Your task to perform on an android device: snooze an email in the gmail app Image 0: 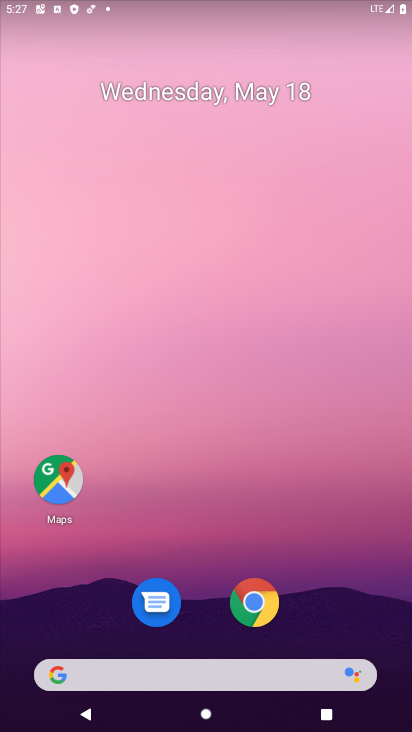
Step 0: drag from (289, 668) to (275, 96)
Your task to perform on an android device: snooze an email in the gmail app Image 1: 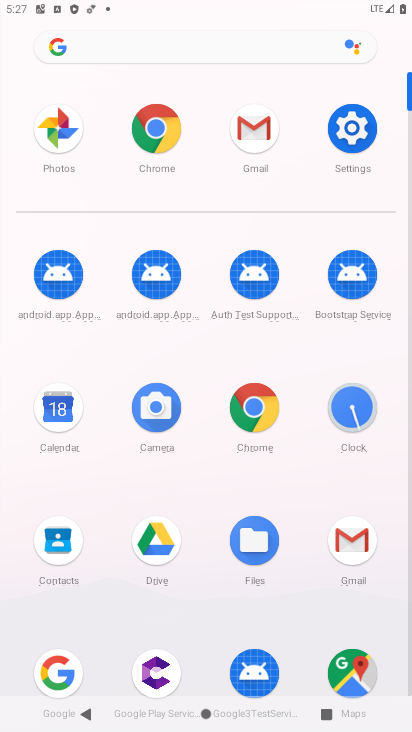
Step 1: click (366, 535)
Your task to perform on an android device: snooze an email in the gmail app Image 2: 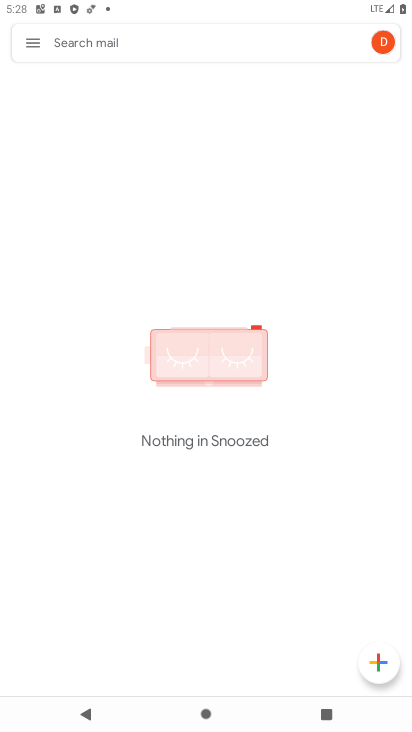
Step 2: click (24, 48)
Your task to perform on an android device: snooze an email in the gmail app Image 3: 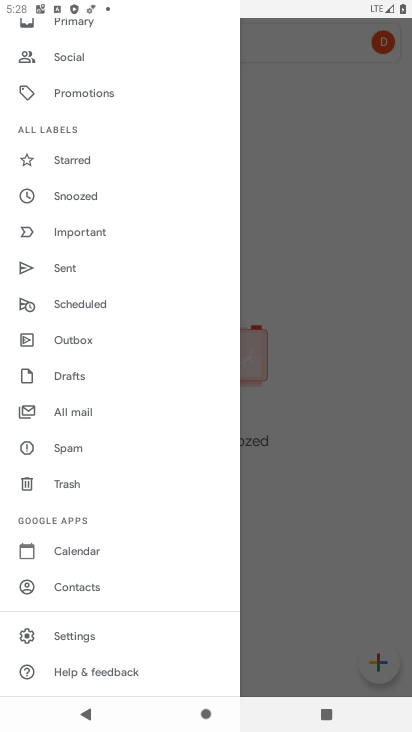
Step 3: click (94, 196)
Your task to perform on an android device: snooze an email in the gmail app Image 4: 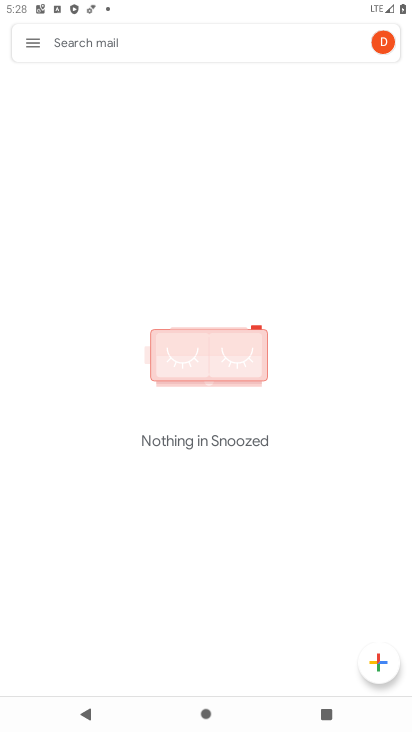
Step 4: task complete